Your task to perform on an android device: toggle sleep mode Image 0: 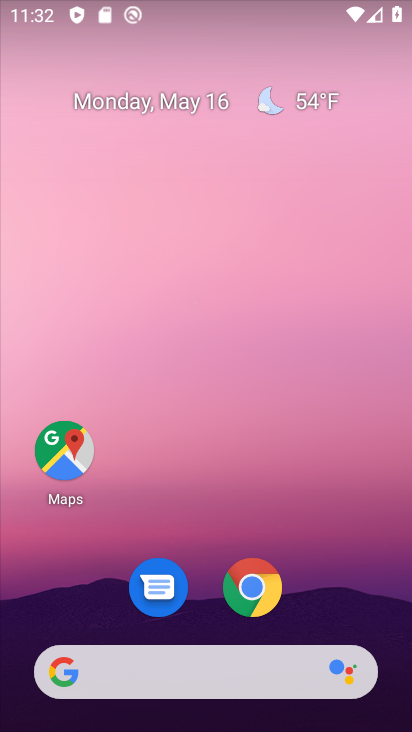
Step 0: drag from (217, 618) to (329, 77)
Your task to perform on an android device: toggle sleep mode Image 1: 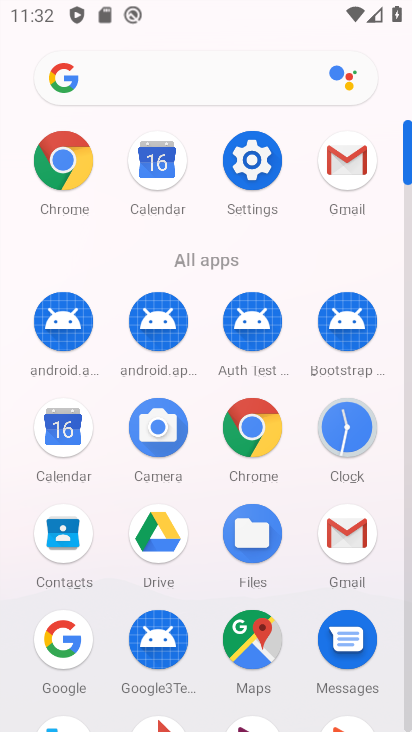
Step 1: click (269, 171)
Your task to perform on an android device: toggle sleep mode Image 2: 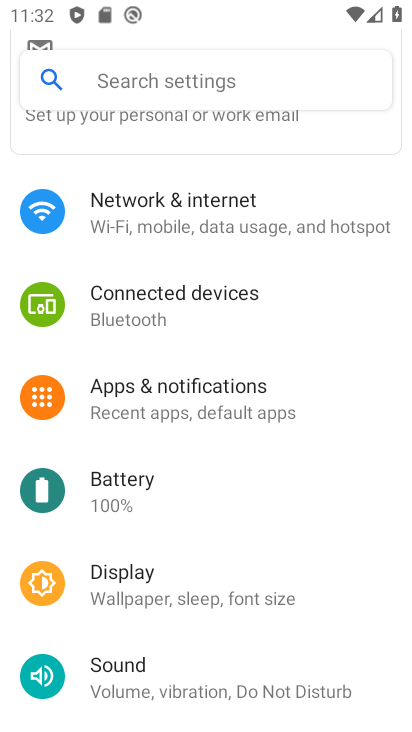
Step 2: click (258, 88)
Your task to perform on an android device: toggle sleep mode Image 3: 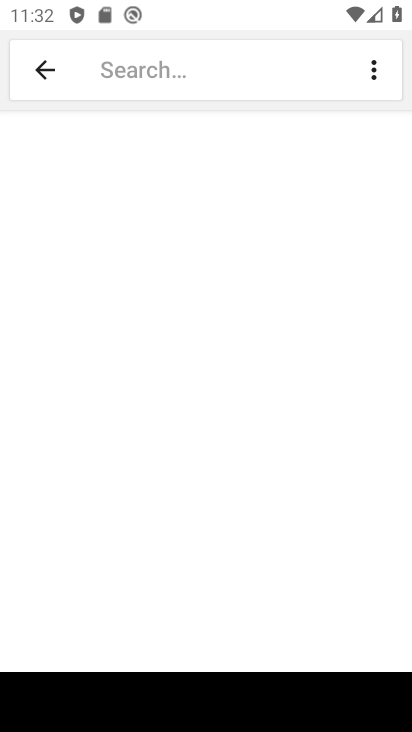
Step 3: type "sleep mode"
Your task to perform on an android device: toggle sleep mode Image 4: 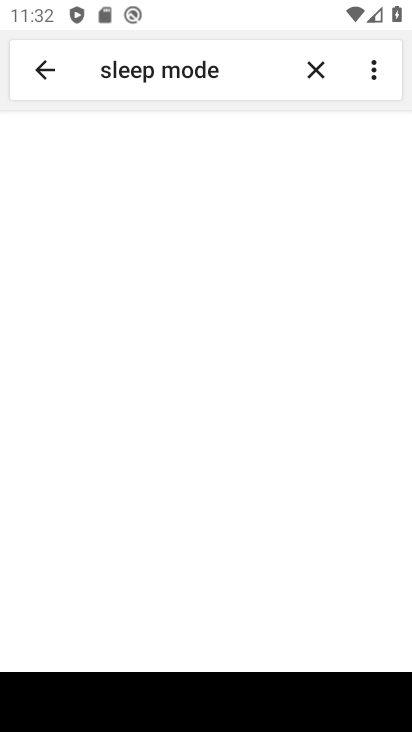
Step 4: task complete